Your task to perform on an android device: toggle javascript in the chrome app Image 0: 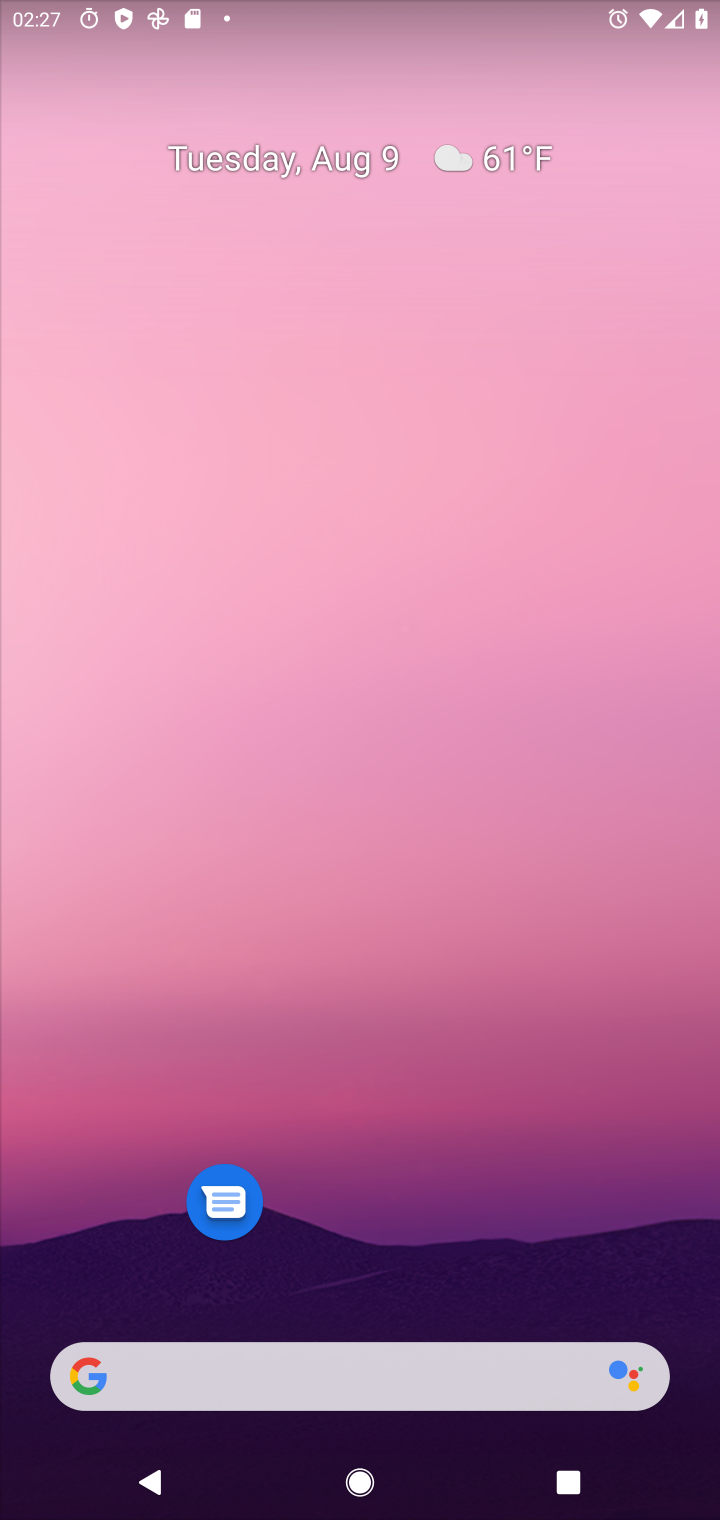
Step 0: drag from (318, 1398) to (533, 1)
Your task to perform on an android device: toggle javascript in the chrome app Image 1: 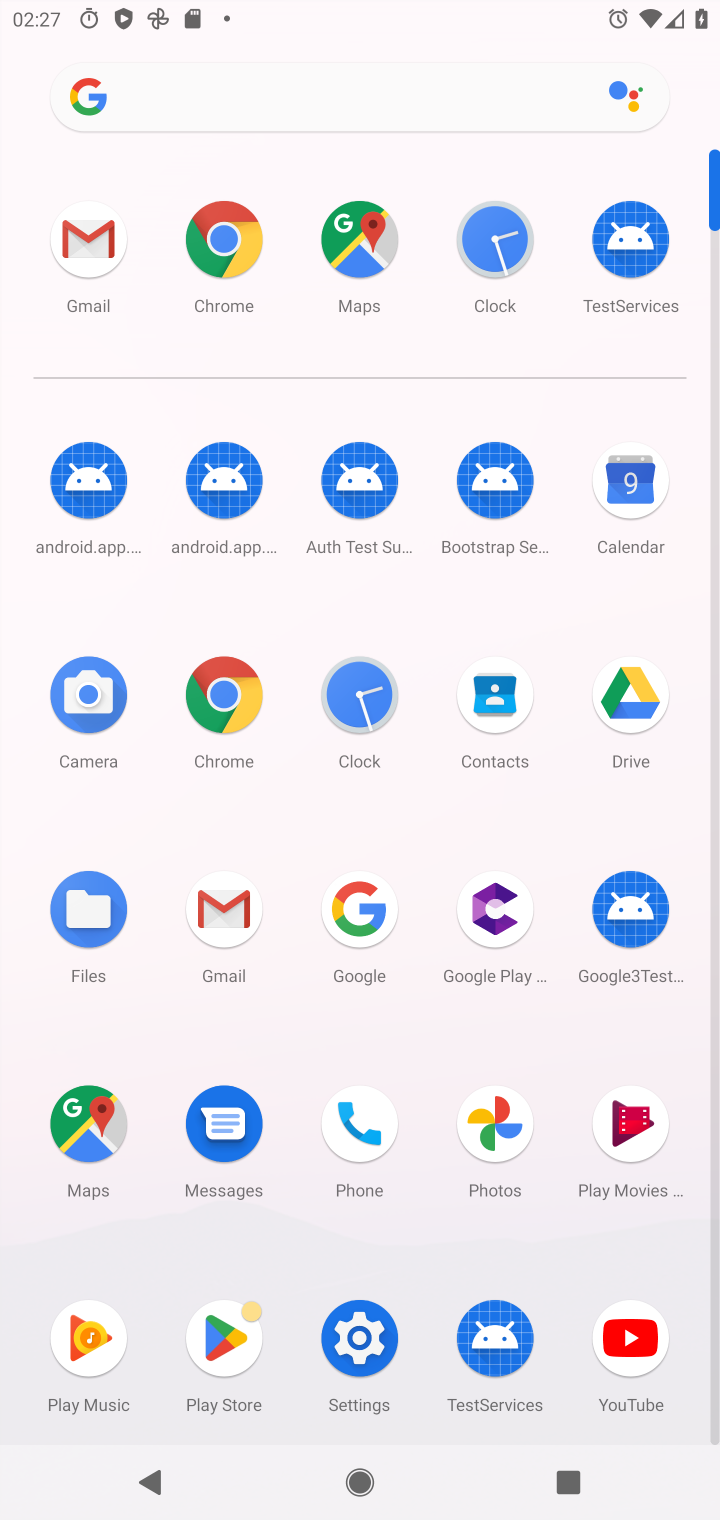
Step 1: click (202, 736)
Your task to perform on an android device: toggle javascript in the chrome app Image 2: 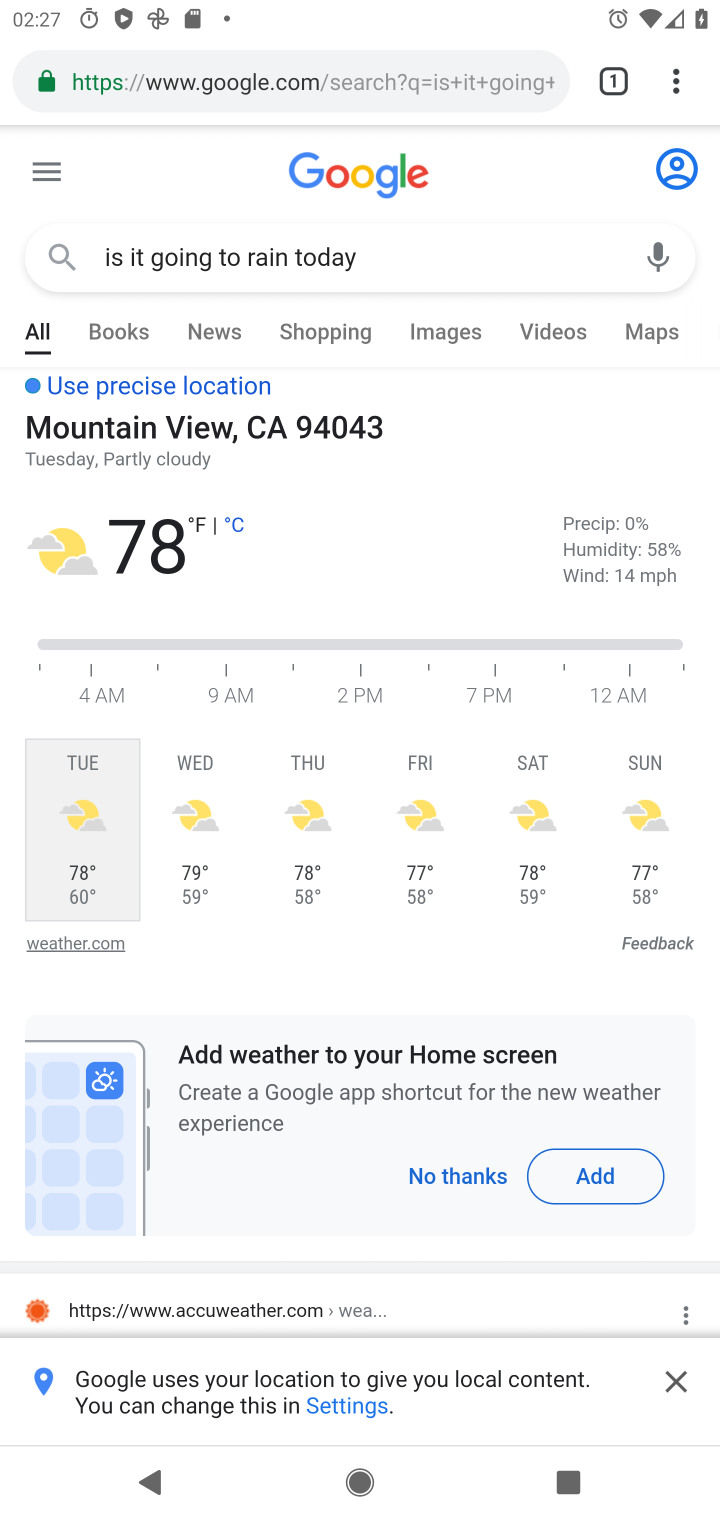
Step 2: click (674, 75)
Your task to perform on an android device: toggle javascript in the chrome app Image 3: 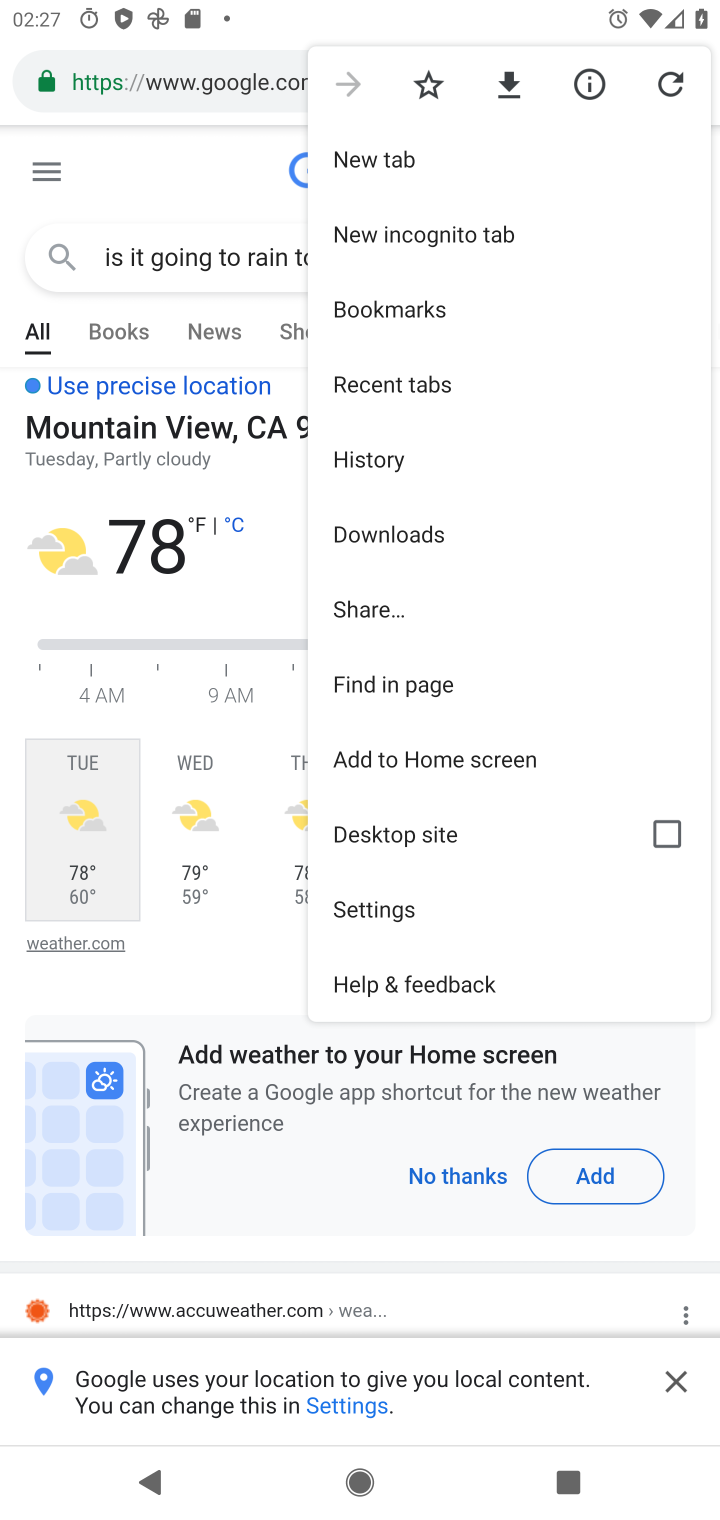
Step 3: click (430, 917)
Your task to perform on an android device: toggle javascript in the chrome app Image 4: 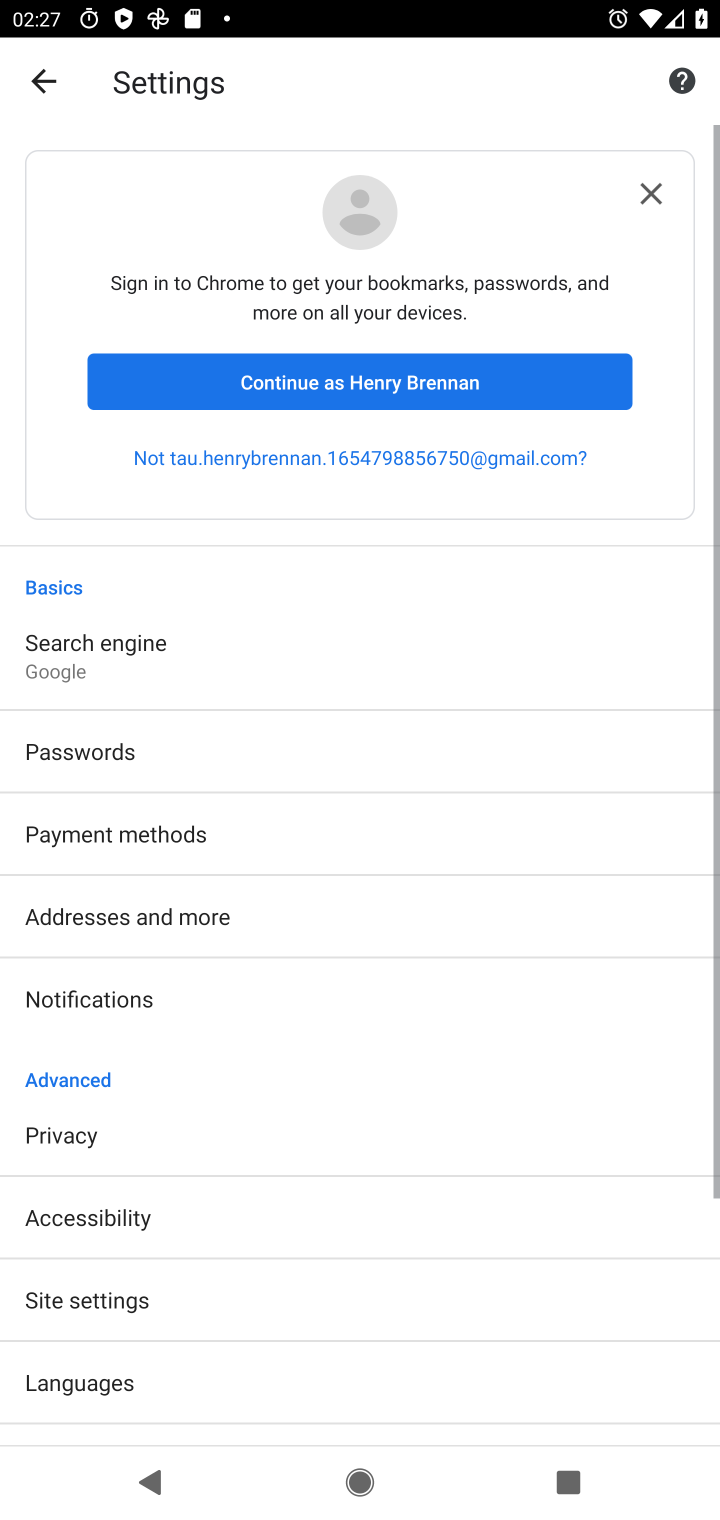
Step 4: click (129, 1298)
Your task to perform on an android device: toggle javascript in the chrome app Image 5: 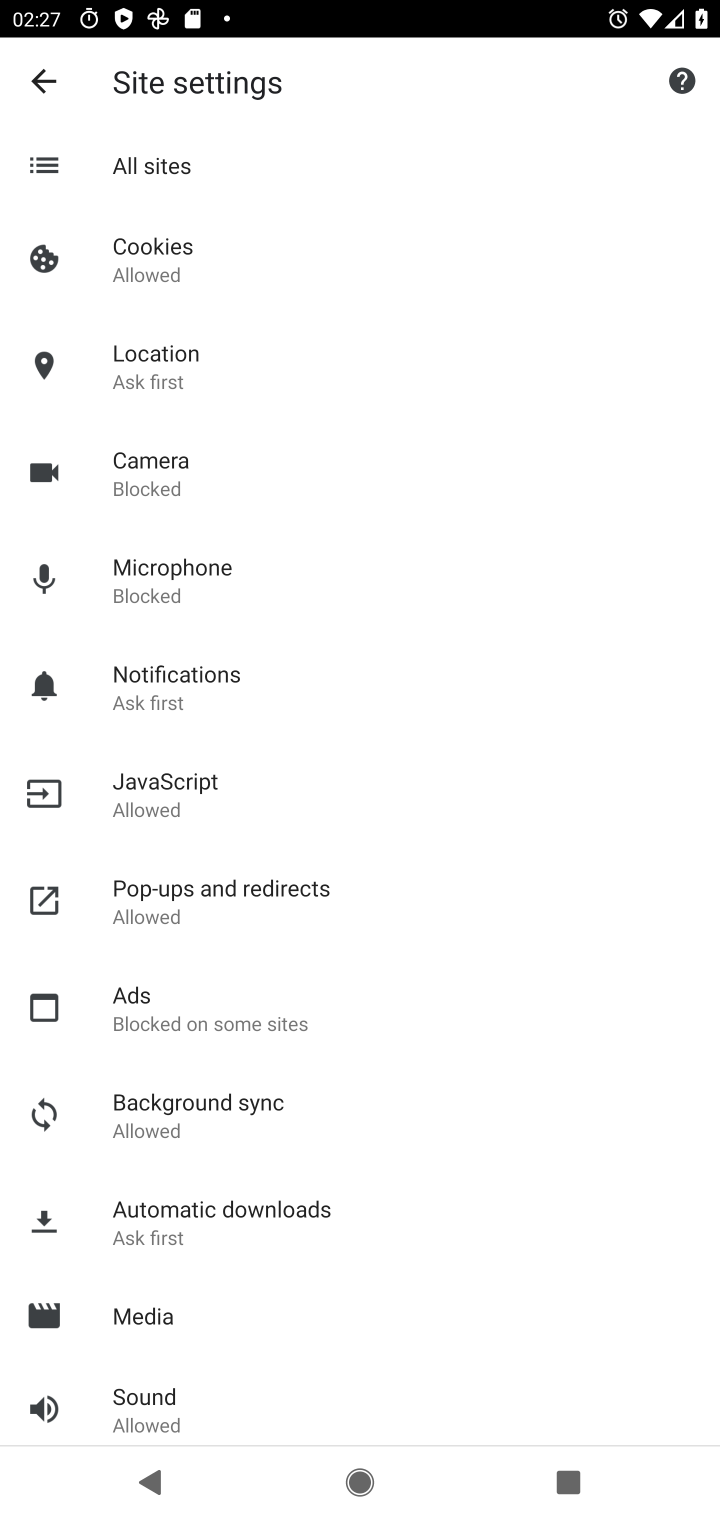
Step 5: click (200, 787)
Your task to perform on an android device: toggle javascript in the chrome app Image 6: 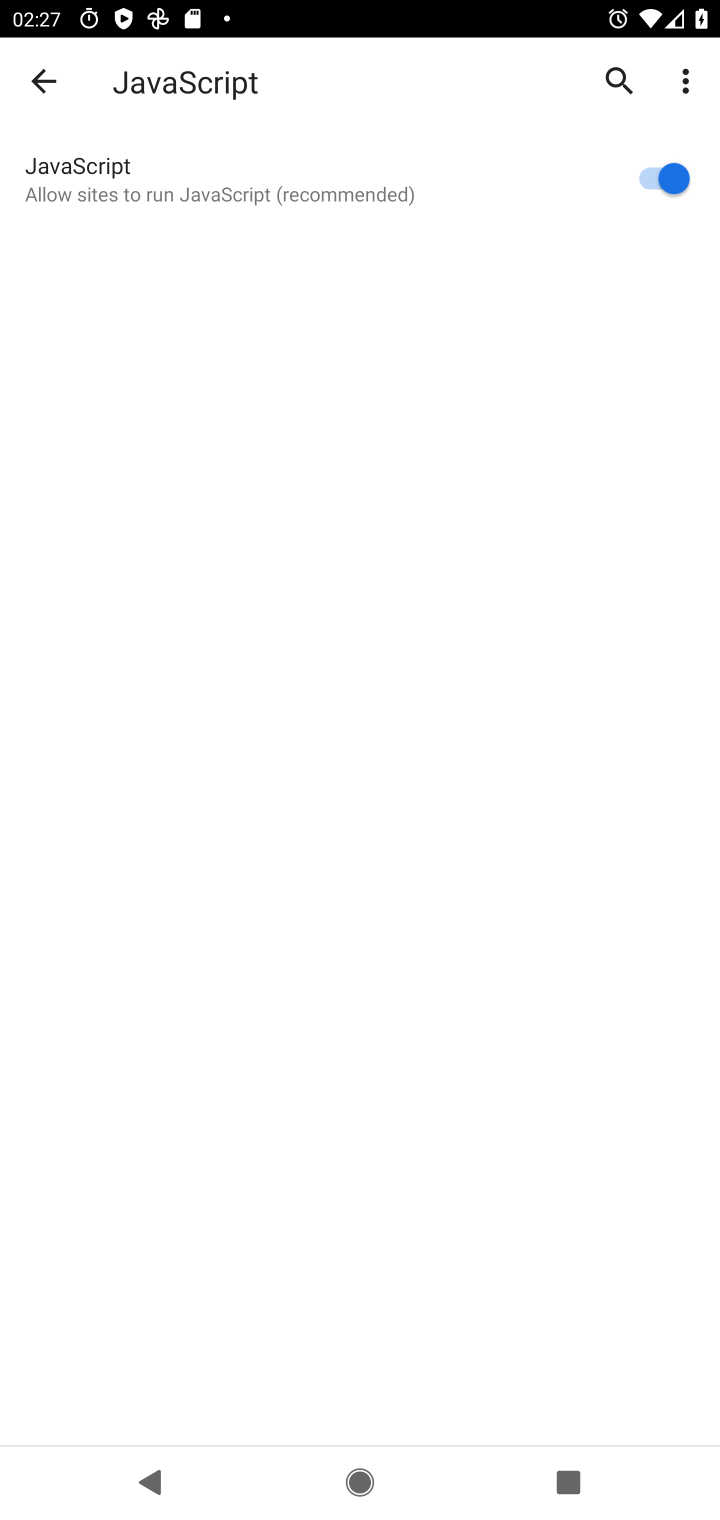
Step 6: click (675, 167)
Your task to perform on an android device: toggle javascript in the chrome app Image 7: 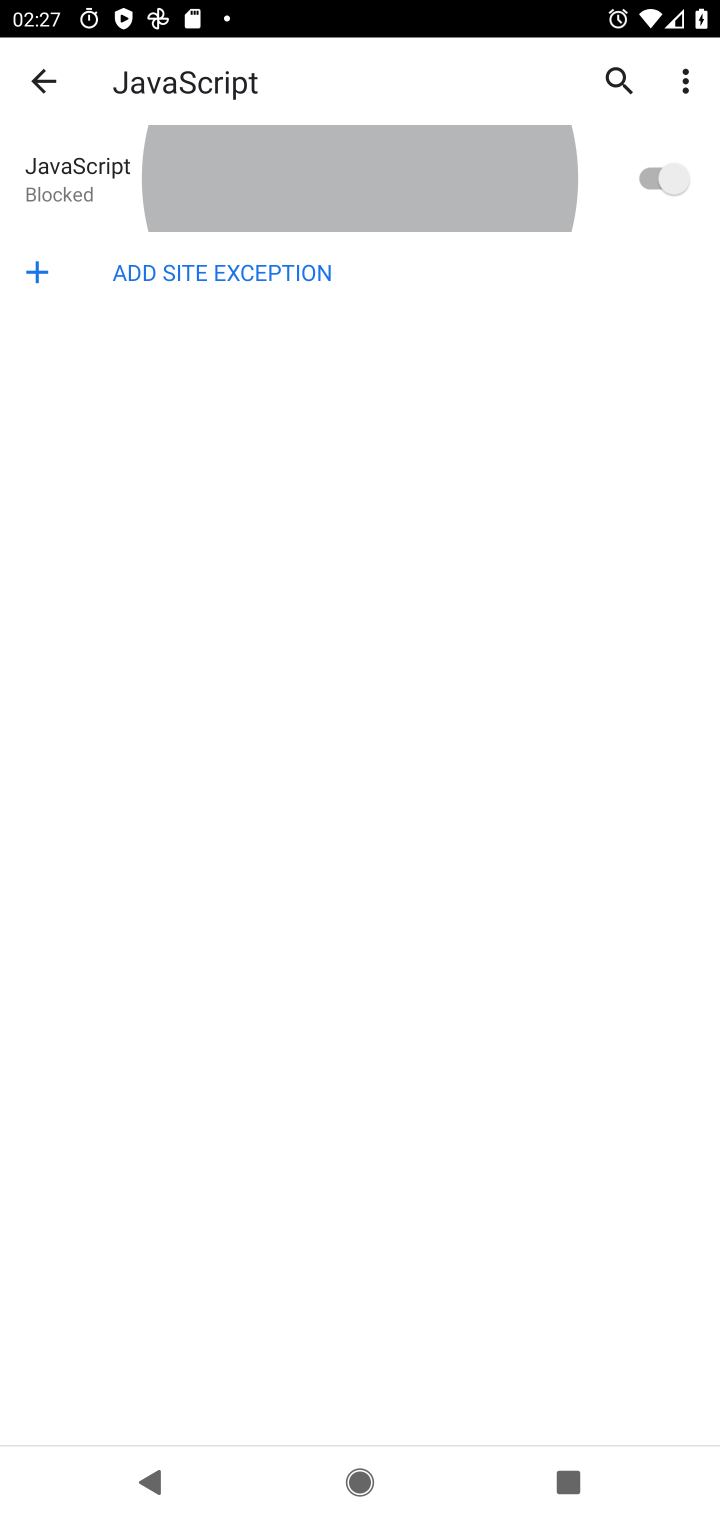
Step 7: task complete